Your task to perform on an android device: turn on translation in the chrome app Image 0: 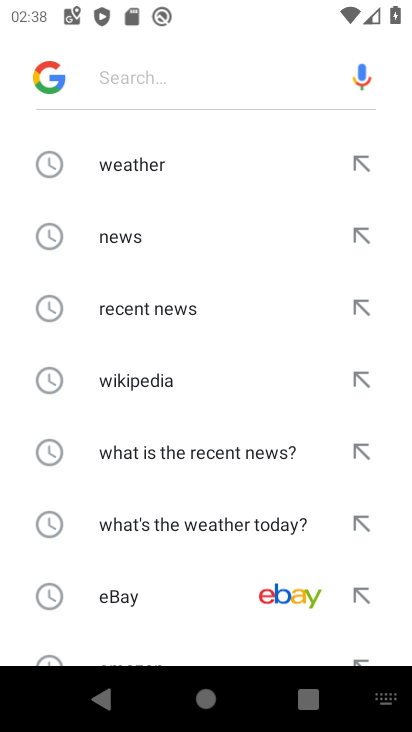
Step 0: drag from (223, 497) to (260, 99)
Your task to perform on an android device: turn on translation in the chrome app Image 1: 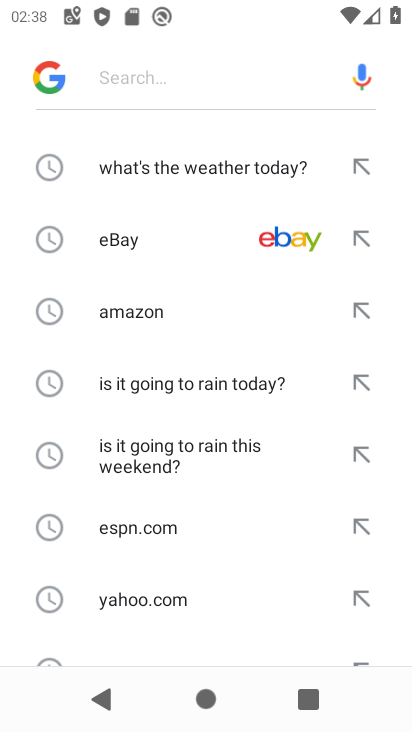
Step 1: press home button
Your task to perform on an android device: turn on translation in the chrome app Image 2: 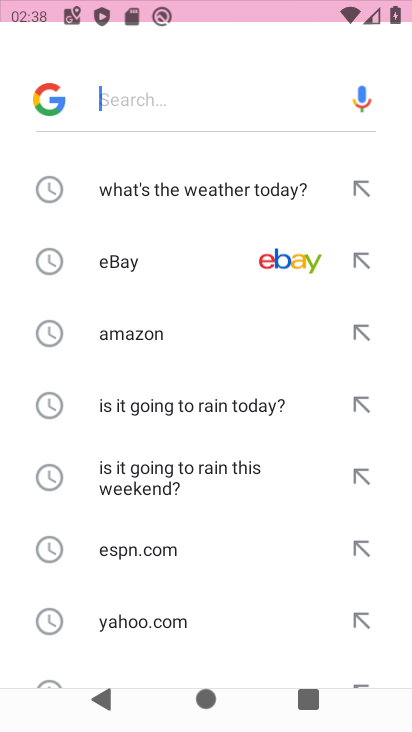
Step 2: drag from (175, 584) to (218, 104)
Your task to perform on an android device: turn on translation in the chrome app Image 3: 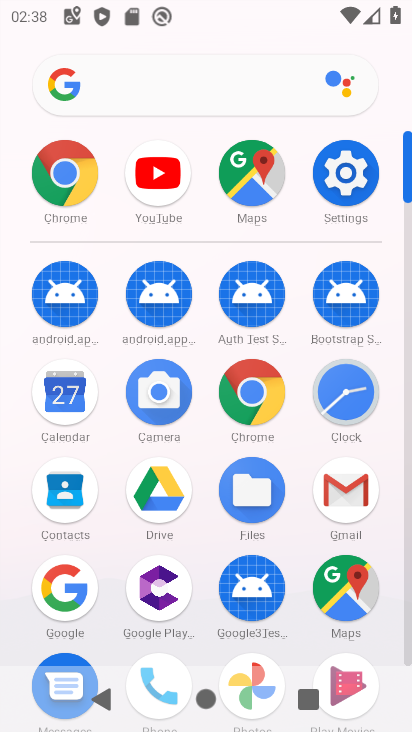
Step 3: click (264, 399)
Your task to perform on an android device: turn on translation in the chrome app Image 4: 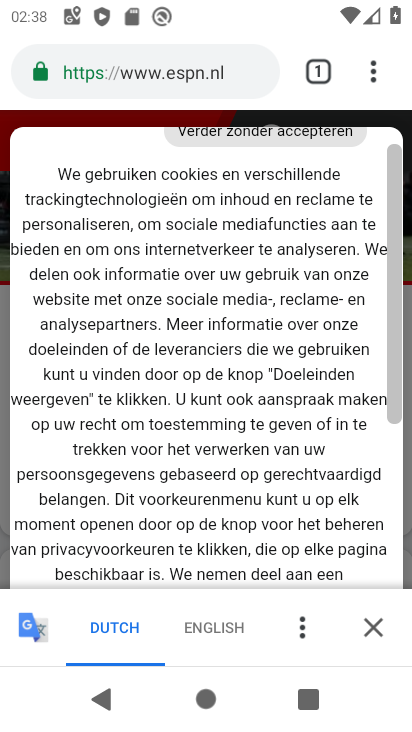
Step 4: drag from (180, 523) to (233, 173)
Your task to perform on an android device: turn on translation in the chrome app Image 5: 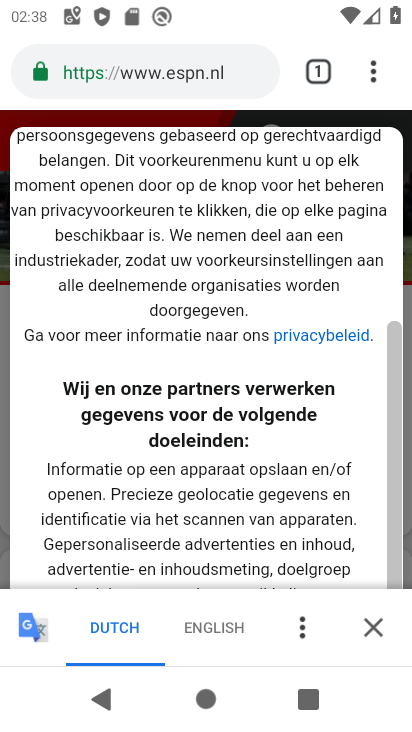
Step 5: click (371, 63)
Your task to perform on an android device: turn on translation in the chrome app Image 6: 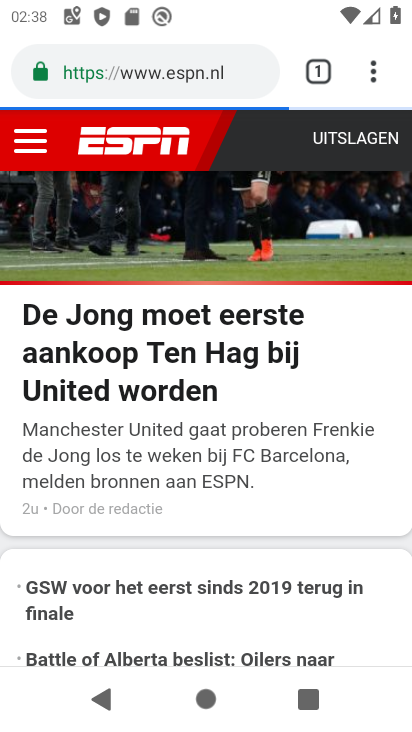
Step 6: drag from (372, 68) to (163, 491)
Your task to perform on an android device: turn on translation in the chrome app Image 7: 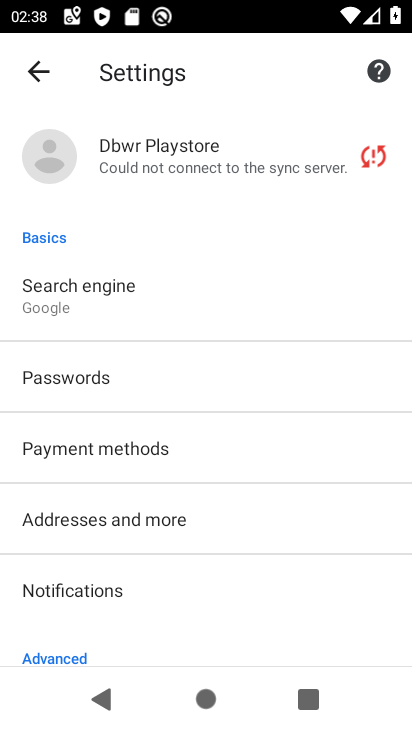
Step 7: drag from (152, 551) to (200, 178)
Your task to perform on an android device: turn on translation in the chrome app Image 8: 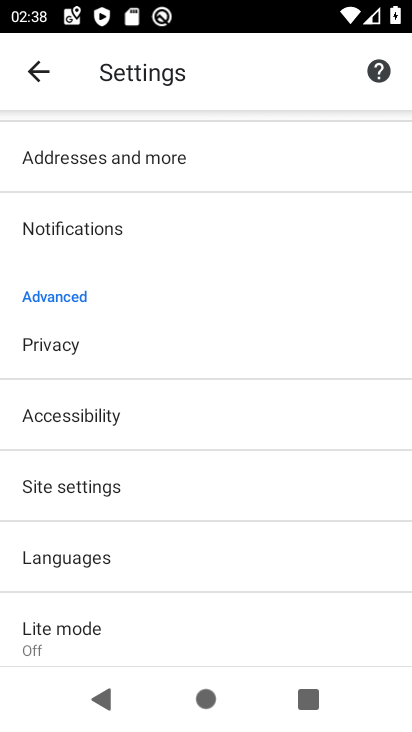
Step 8: click (79, 545)
Your task to perform on an android device: turn on translation in the chrome app Image 9: 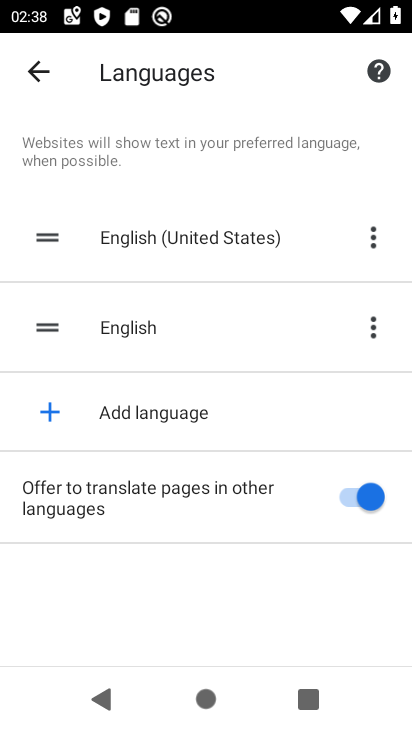
Step 9: task complete